Your task to perform on an android device: Go to privacy settings Image 0: 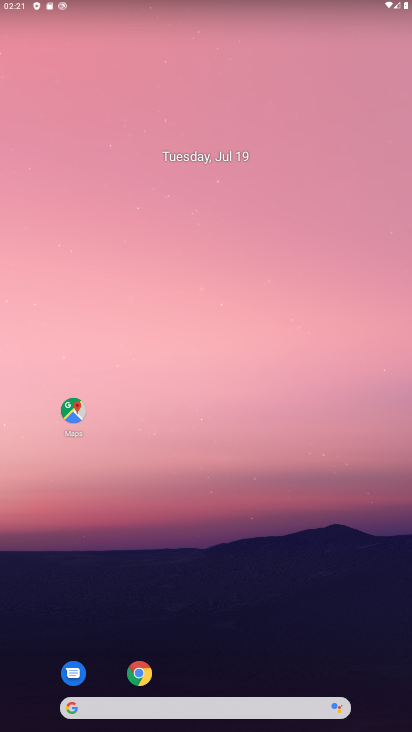
Step 0: drag from (218, 686) to (224, 274)
Your task to perform on an android device: Go to privacy settings Image 1: 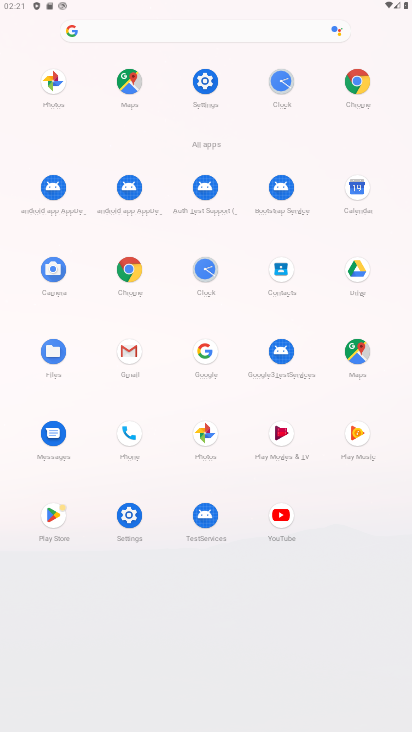
Step 1: click (137, 263)
Your task to perform on an android device: Go to privacy settings Image 2: 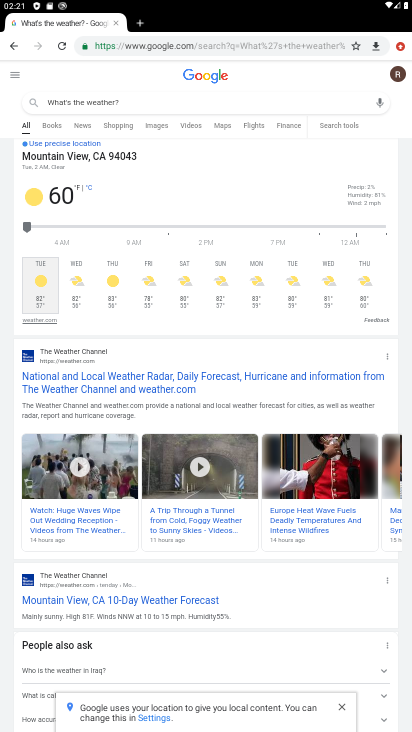
Step 2: drag from (395, 42) to (317, 312)
Your task to perform on an android device: Go to privacy settings Image 3: 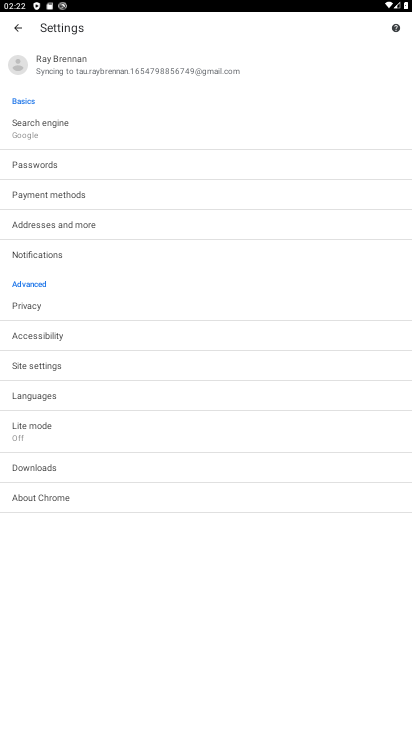
Step 3: click (177, 320)
Your task to perform on an android device: Go to privacy settings Image 4: 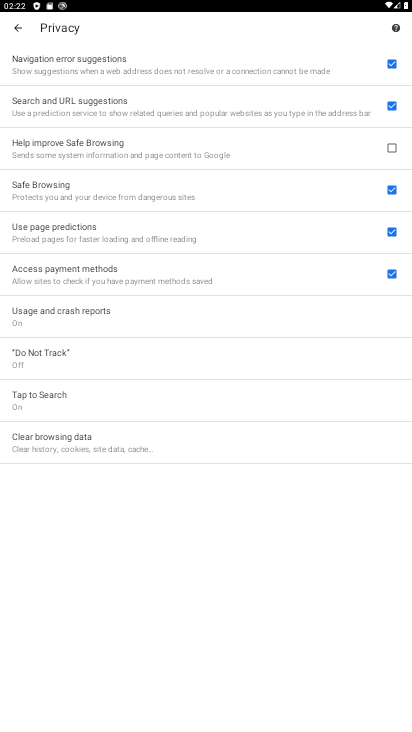
Step 4: task complete